Your task to perform on an android device: toggle wifi Image 0: 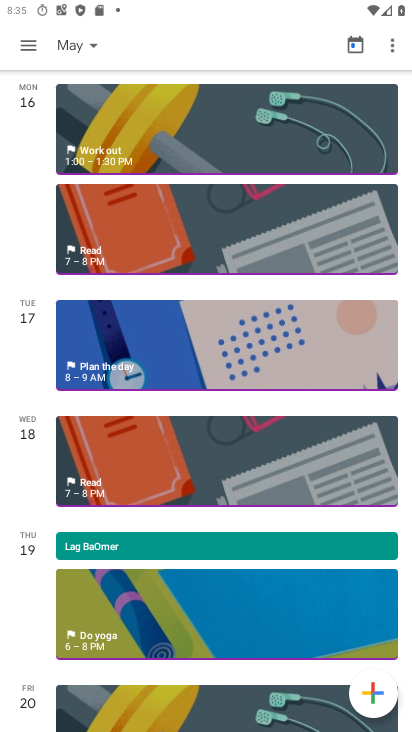
Step 0: click (78, 48)
Your task to perform on an android device: toggle wifi Image 1: 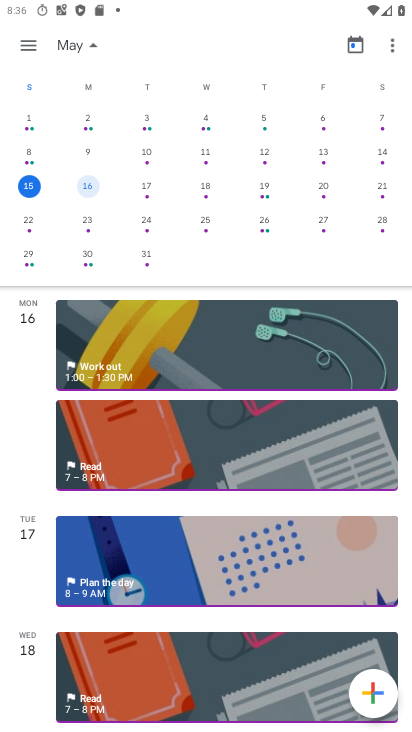
Step 1: press home button
Your task to perform on an android device: toggle wifi Image 2: 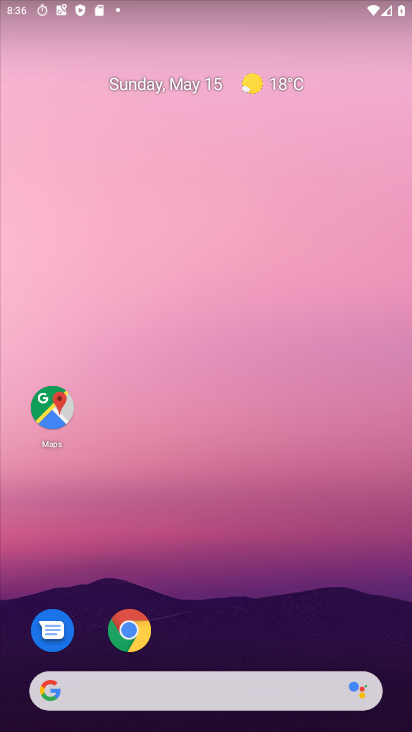
Step 2: drag from (188, 644) to (265, 103)
Your task to perform on an android device: toggle wifi Image 3: 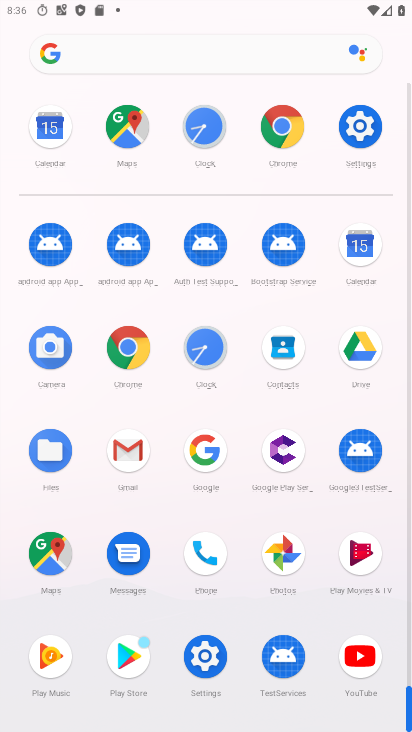
Step 3: click (370, 112)
Your task to perform on an android device: toggle wifi Image 4: 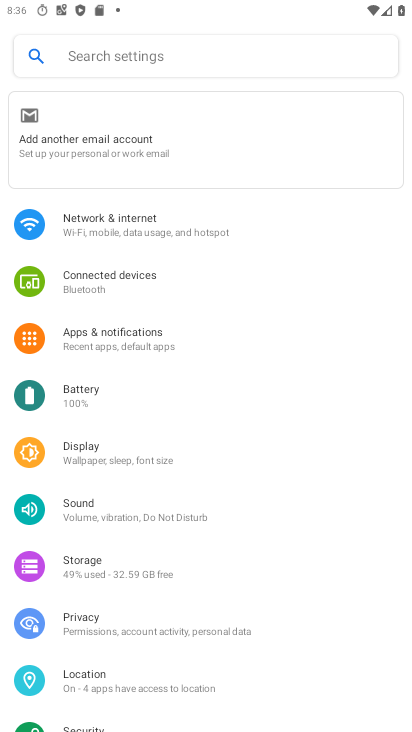
Step 4: click (98, 228)
Your task to perform on an android device: toggle wifi Image 5: 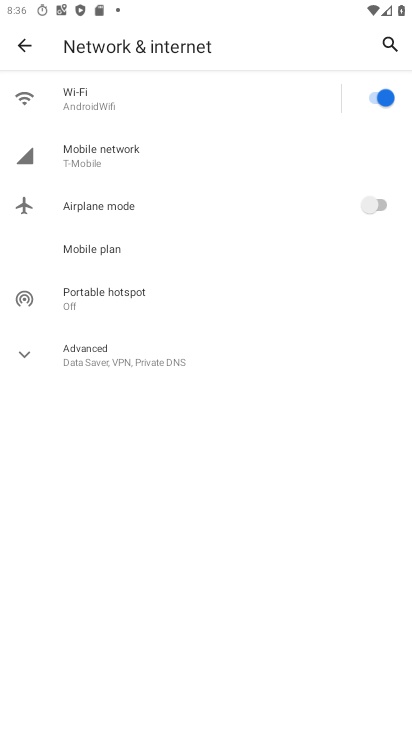
Step 5: click (289, 96)
Your task to perform on an android device: toggle wifi Image 6: 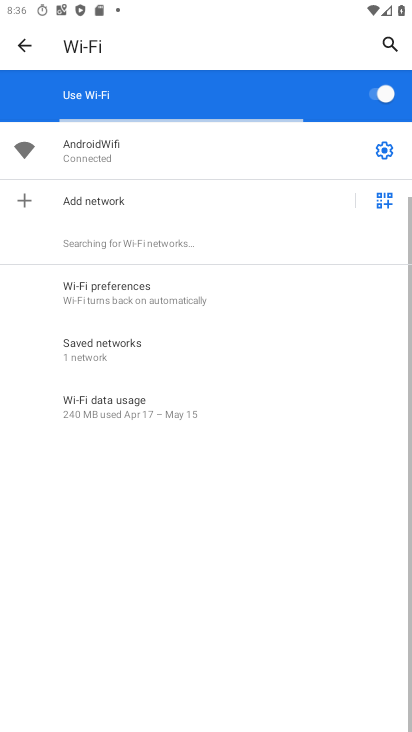
Step 6: click (371, 86)
Your task to perform on an android device: toggle wifi Image 7: 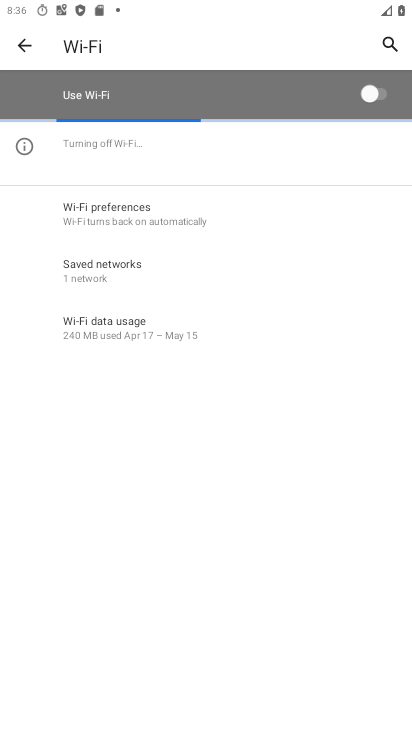
Step 7: task complete